Your task to perform on an android device: set an alarm Image 0: 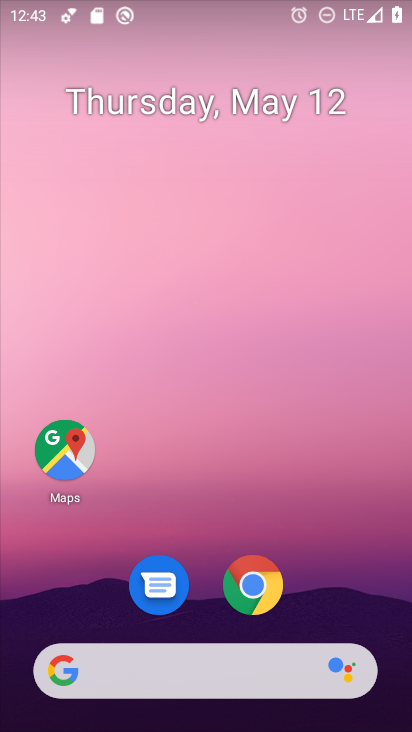
Step 0: drag from (229, 352) to (213, 0)
Your task to perform on an android device: set an alarm Image 1: 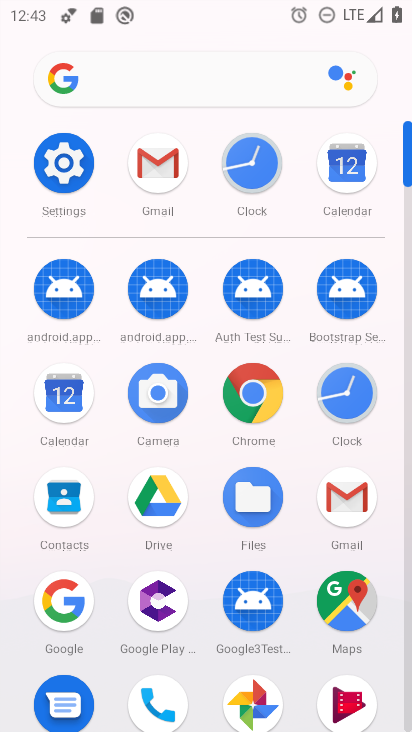
Step 1: click (248, 171)
Your task to perform on an android device: set an alarm Image 2: 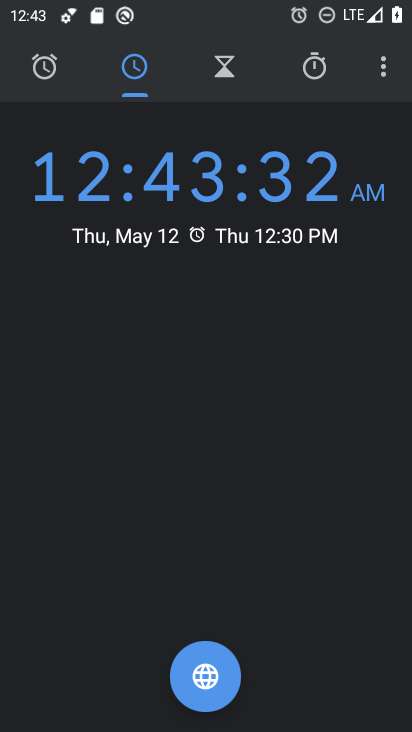
Step 2: click (50, 67)
Your task to perform on an android device: set an alarm Image 3: 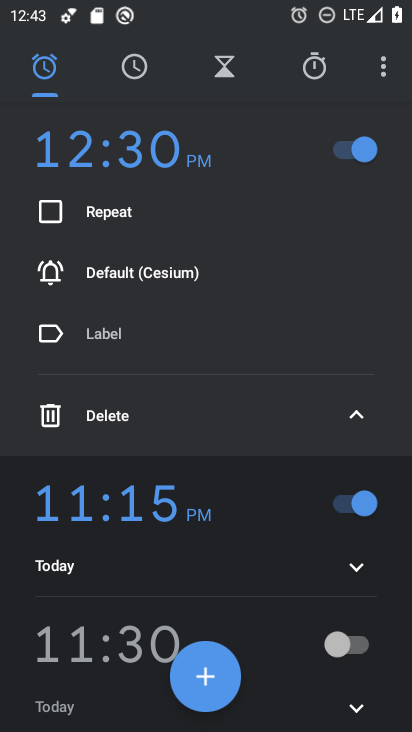
Step 3: click (210, 681)
Your task to perform on an android device: set an alarm Image 4: 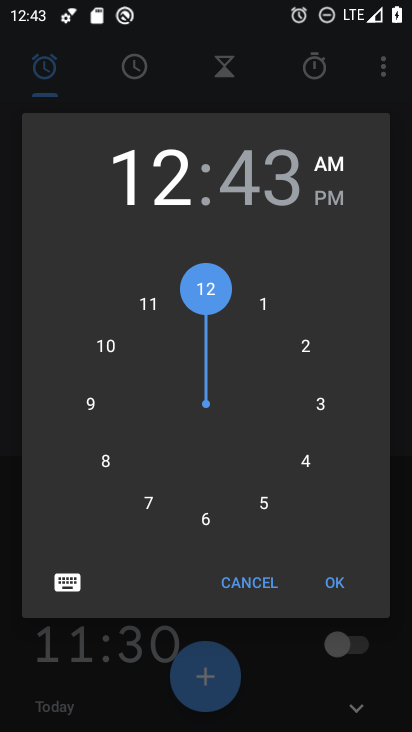
Step 4: click (266, 194)
Your task to perform on an android device: set an alarm Image 5: 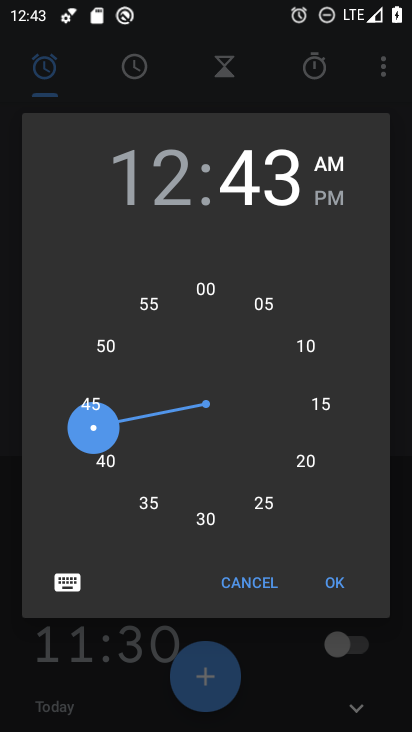
Step 5: click (208, 284)
Your task to perform on an android device: set an alarm Image 6: 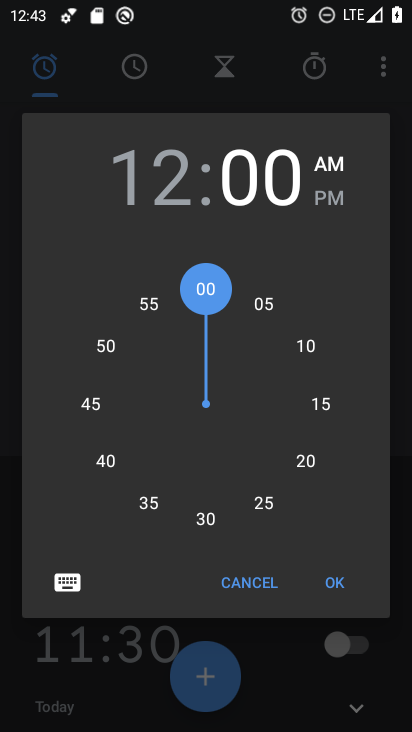
Step 6: click (151, 189)
Your task to perform on an android device: set an alarm Image 7: 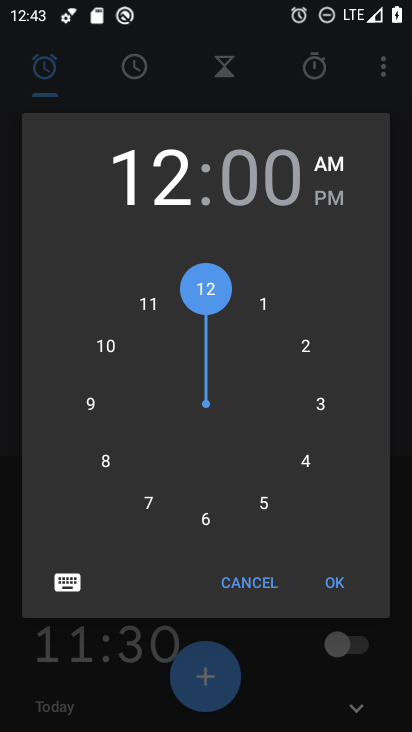
Step 7: click (98, 398)
Your task to perform on an android device: set an alarm Image 8: 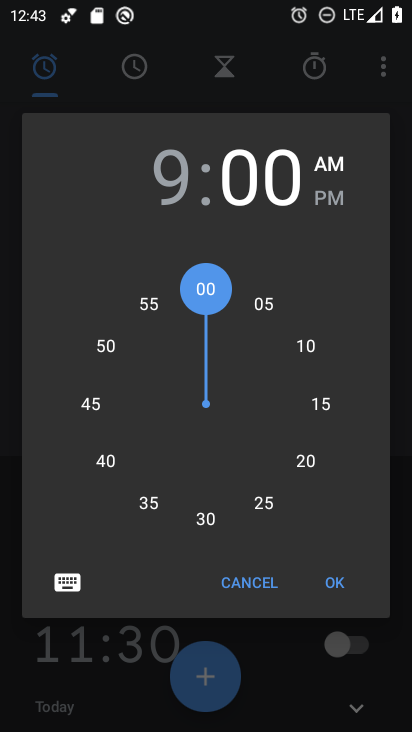
Step 8: click (332, 578)
Your task to perform on an android device: set an alarm Image 9: 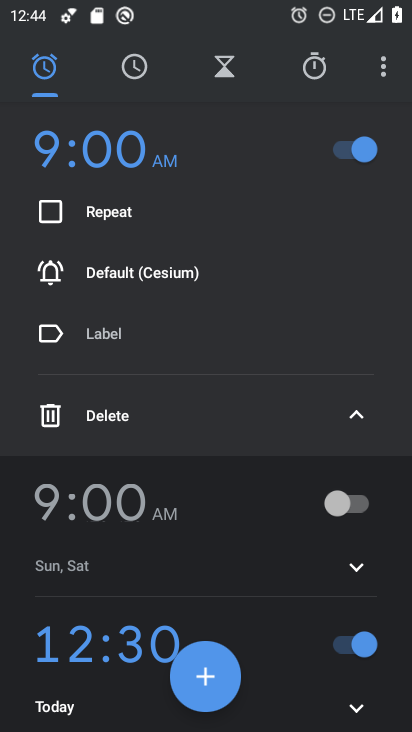
Step 9: task complete